Your task to perform on an android device: Open calendar and show me the fourth week of next month Image 0: 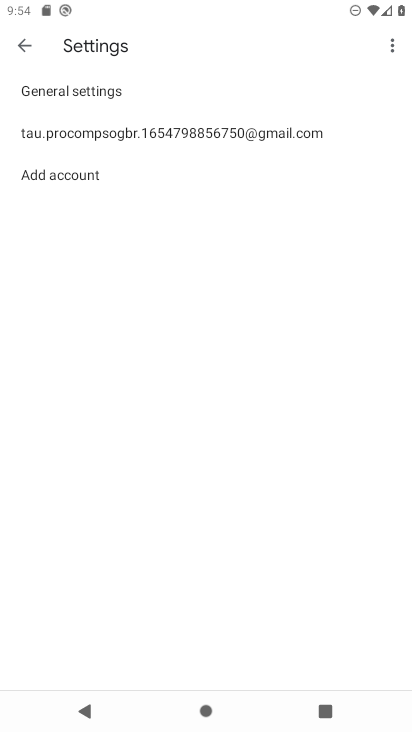
Step 0: press home button
Your task to perform on an android device: Open calendar and show me the fourth week of next month Image 1: 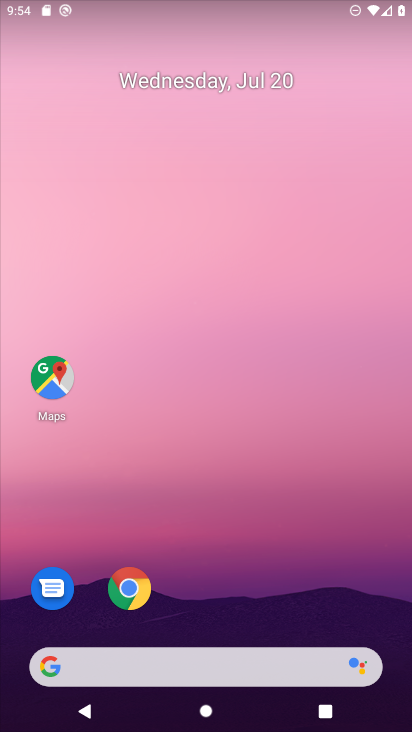
Step 1: click (213, 79)
Your task to perform on an android device: Open calendar and show me the fourth week of next month Image 2: 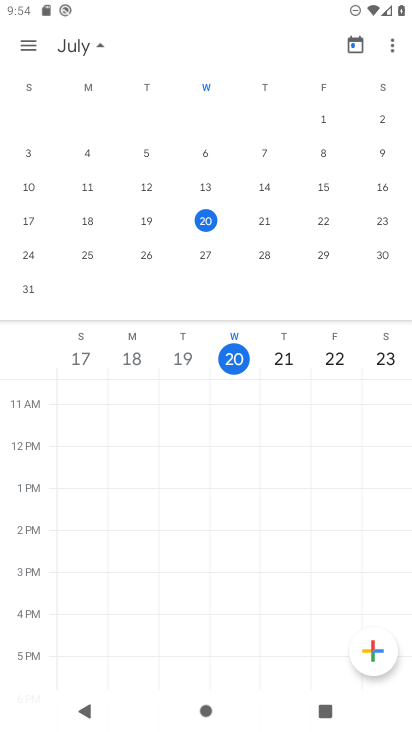
Step 2: drag from (380, 308) to (125, 291)
Your task to perform on an android device: Open calendar and show me the fourth week of next month Image 3: 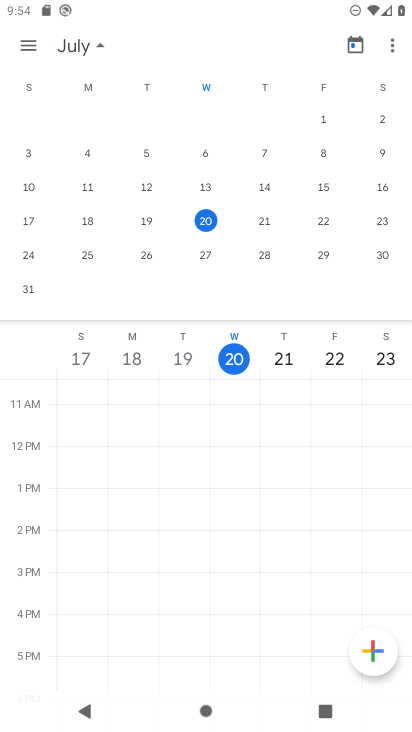
Step 3: drag from (395, 284) to (95, 262)
Your task to perform on an android device: Open calendar and show me the fourth week of next month Image 4: 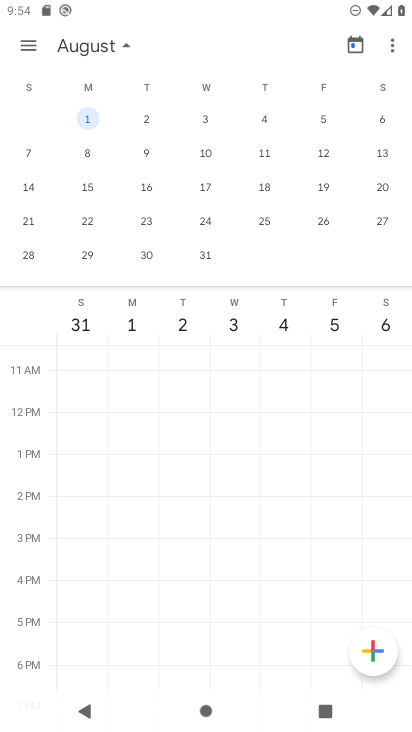
Step 4: click (92, 226)
Your task to perform on an android device: Open calendar and show me the fourth week of next month Image 5: 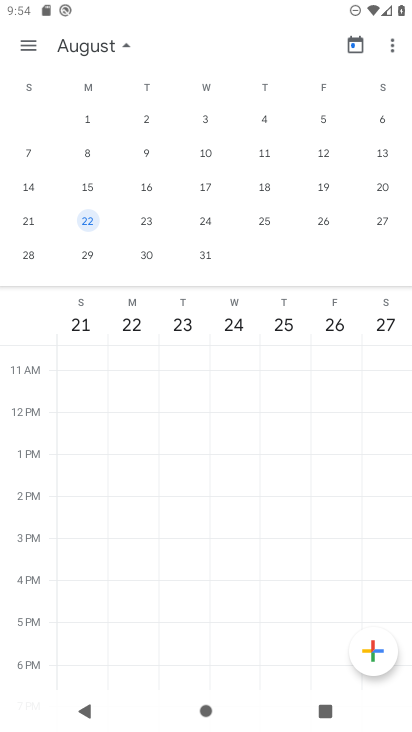
Step 5: task complete